Your task to perform on an android device: Open ESPN.com Image 0: 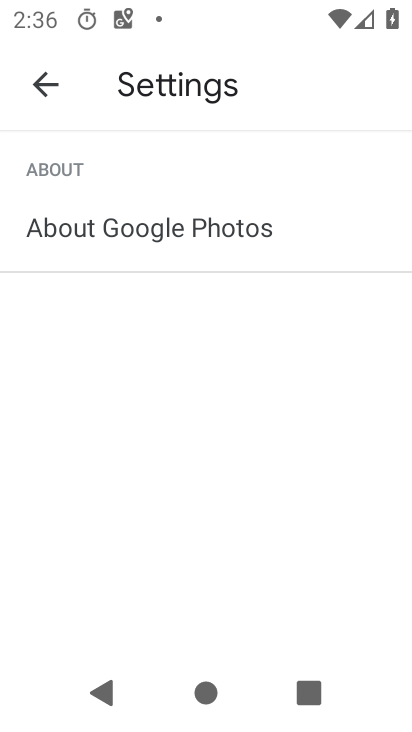
Step 0: press home button
Your task to perform on an android device: Open ESPN.com Image 1: 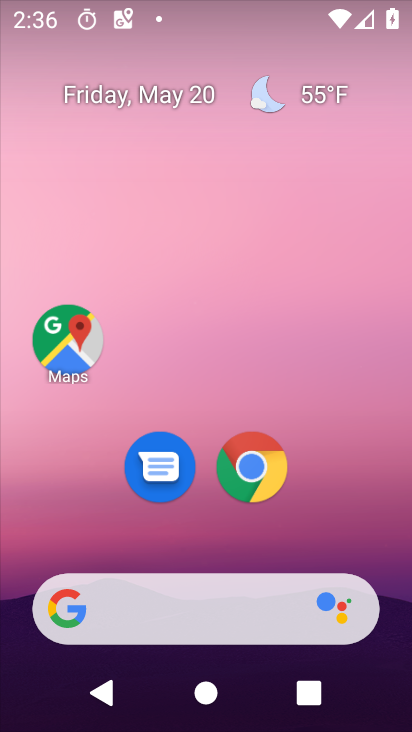
Step 1: click (244, 469)
Your task to perform on an android device: Open ESPN.com Image 2: 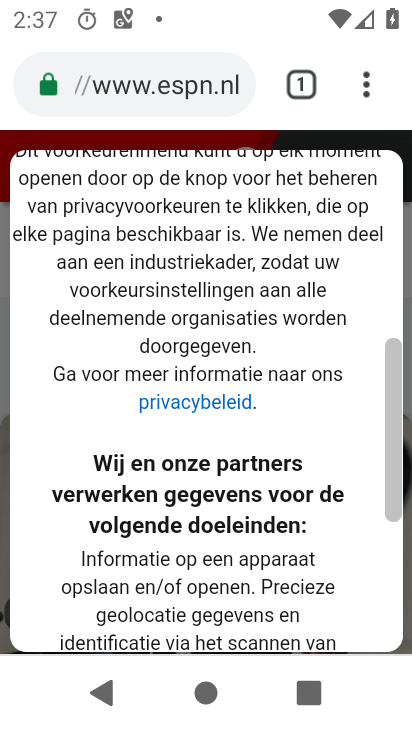
Step 2: task complete